Your task to perform on an android device: Search for razer naga on bestbuy.com, select the first entry, and add it to the cart. Image 0: 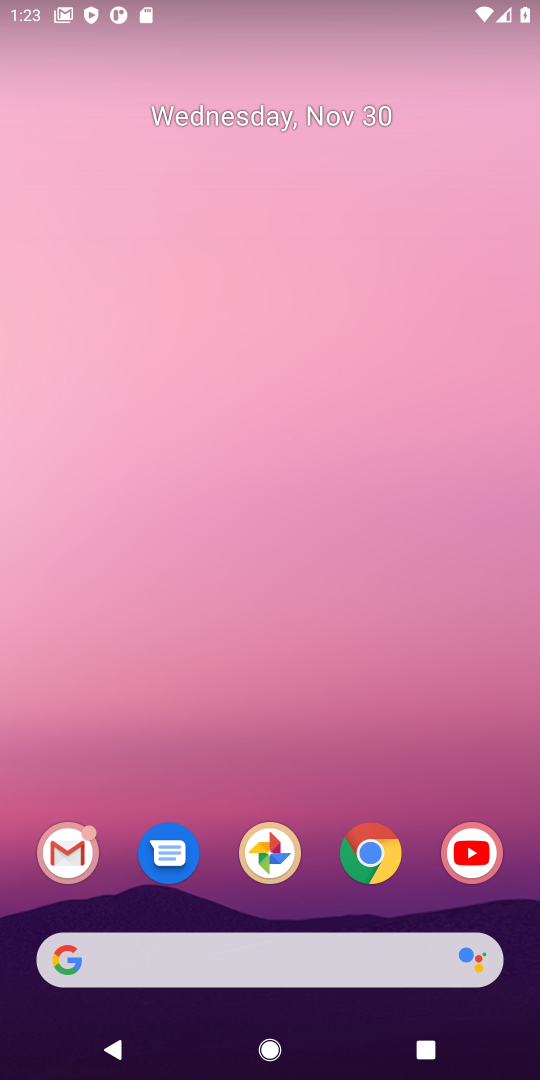
Step 0: click (367, 858)
Your task to perform on an android device: Search for razer naga on bestbuy.com, select the first entry, and add it to the cart. Image 1: 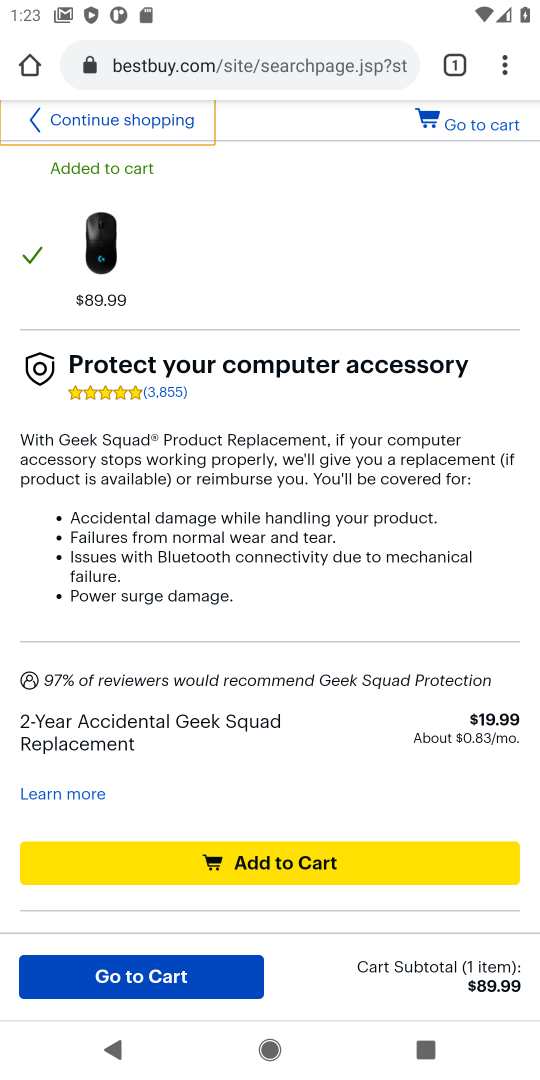
Step 1: press back button
Your task to perform on an android device: Search for razer naga on bestbuy.com, select the first entry, and add it to the cart. Image 2: 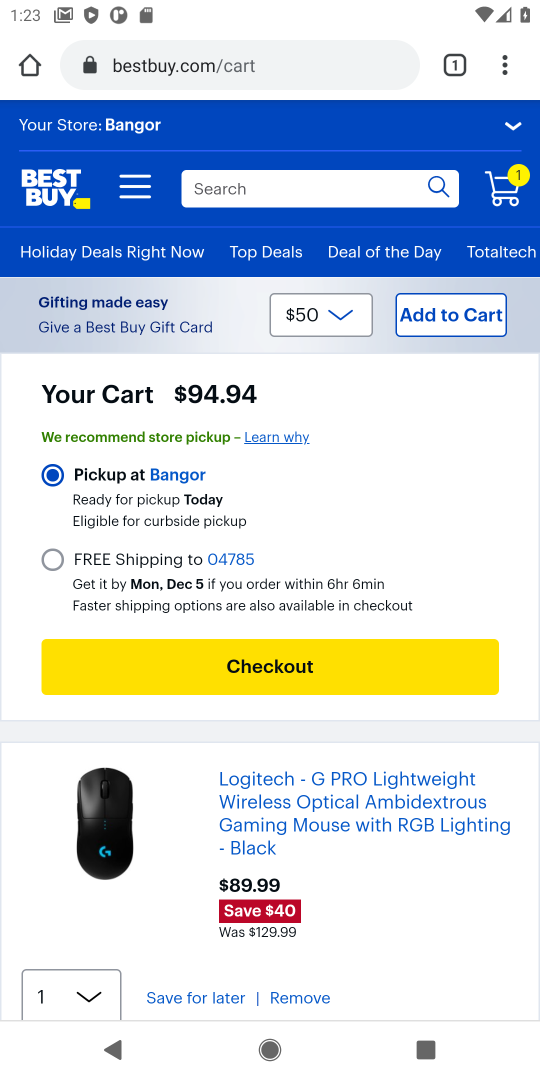
Step 2: click (255, 186)
Your task to perform on an android device: Search for razer naga on bestbuy.com, select the first entry, and add it to the cart. Image 3: 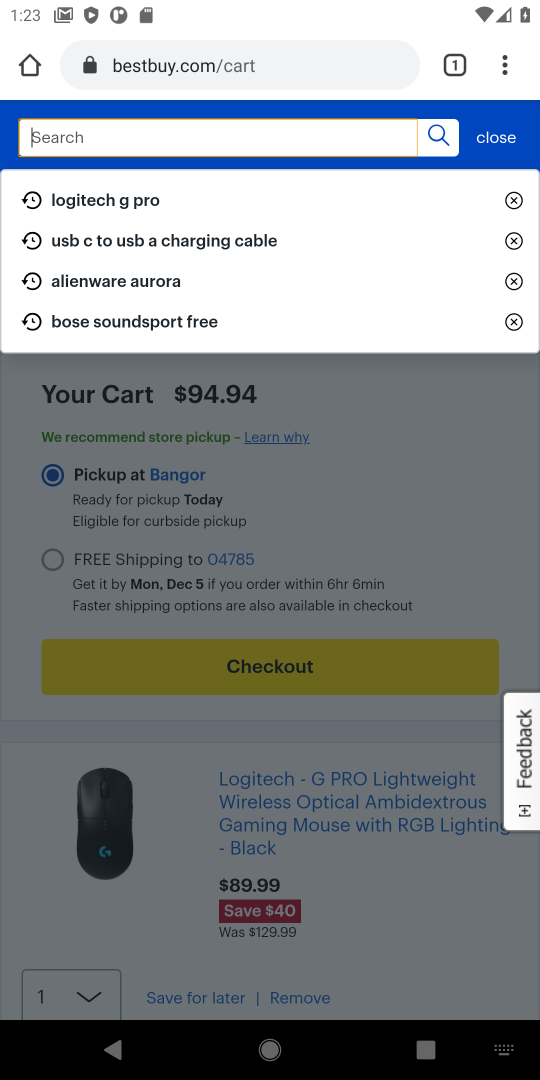
Step 3: type "razer naga"
Your task to perform on an android device: Search for razer naga on bestbuy.com, select the first entry, and add it to the cart. Image 4: 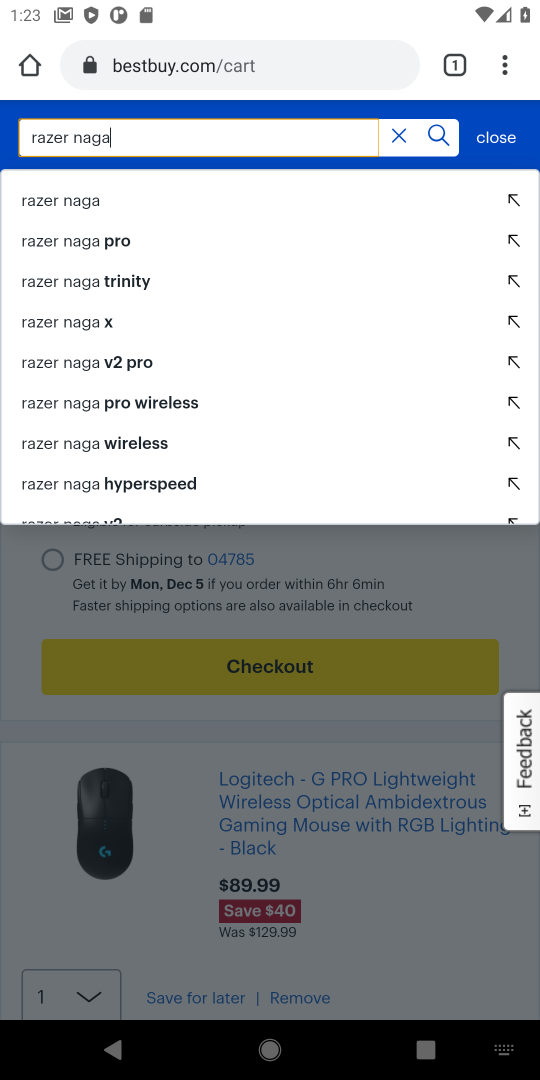
Step 4: click (51, 214)
Your task to perform on an android device: Search for razer naga on bestbuy.com, select the first entry, and add it to the cart. Image 5: 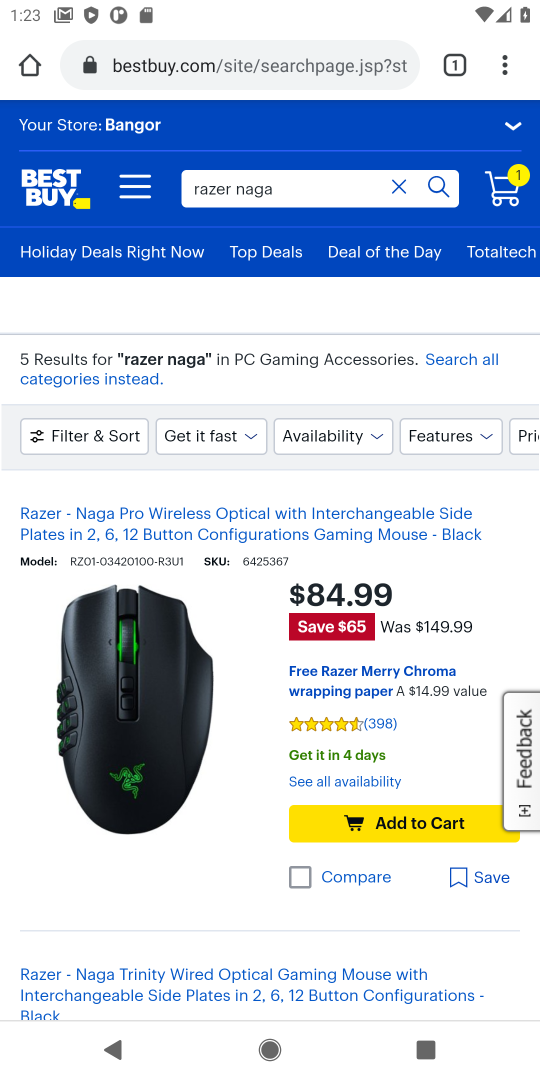
Step 5: click (189, 709)
Your task to perform on an android device: Search for razer naga on bestbuy.com, select the first entry, and add it to the cart. Image 6: 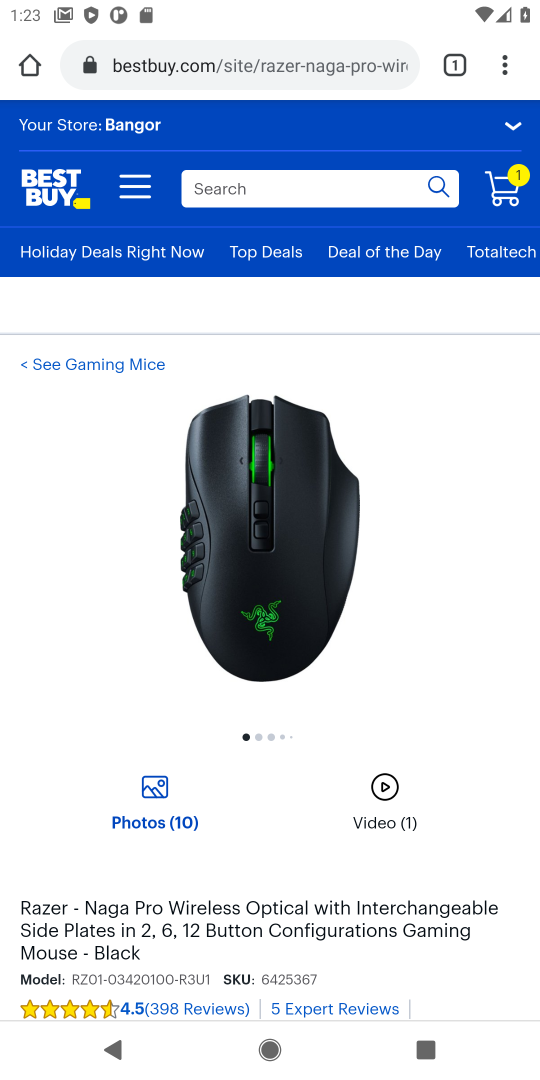
Step 6: drag from (265, 799) to (261, 444)
Your task to perform on an android device: Search for razer naga on bestbuy.com, select the first entry, and add it to the cart. Image 7: 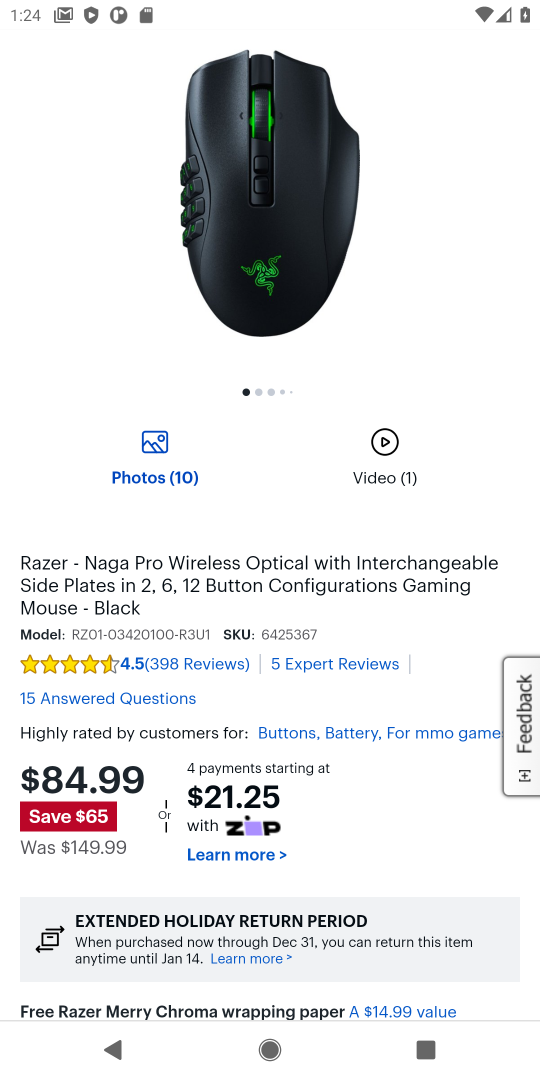
Step 7: drag from (386, 766) to (341, 303)
Your task to perform on an android device: Search for razer naga on bestbuy.com, select the first entry, and add it to the cart. Image 8: 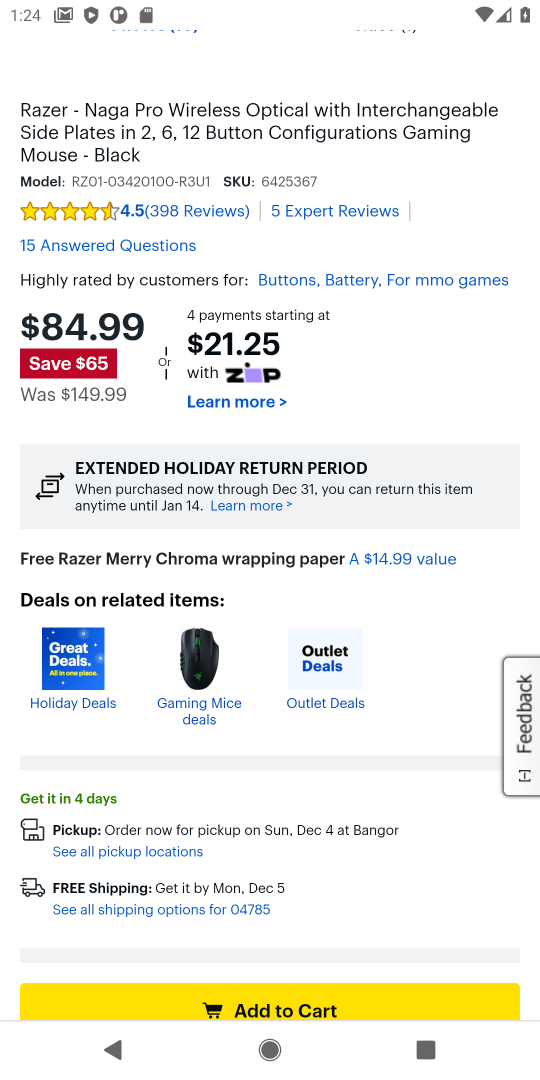
Step 8: drag from (324, 668) to (319, 585)
Your task to perform on an android device: Search for razer naga on bestbuy.com, select the first entry, and add it to the cart. Image 9: 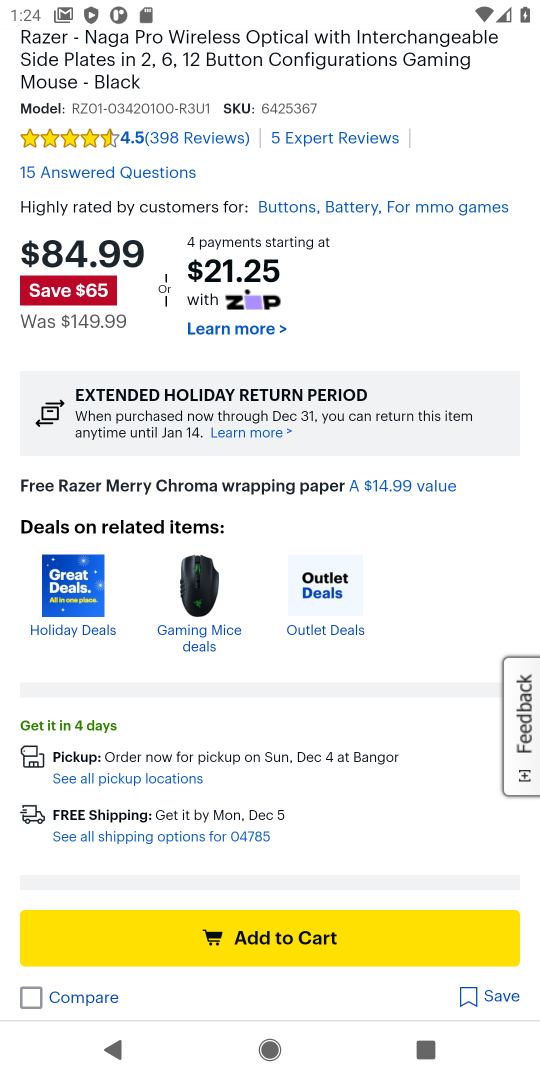
Step 9: click (248, 938)
Your task to perform on an android device: Search for razer naga on bestbuy.com, select the first entry, and add it to the cart. Image 10: 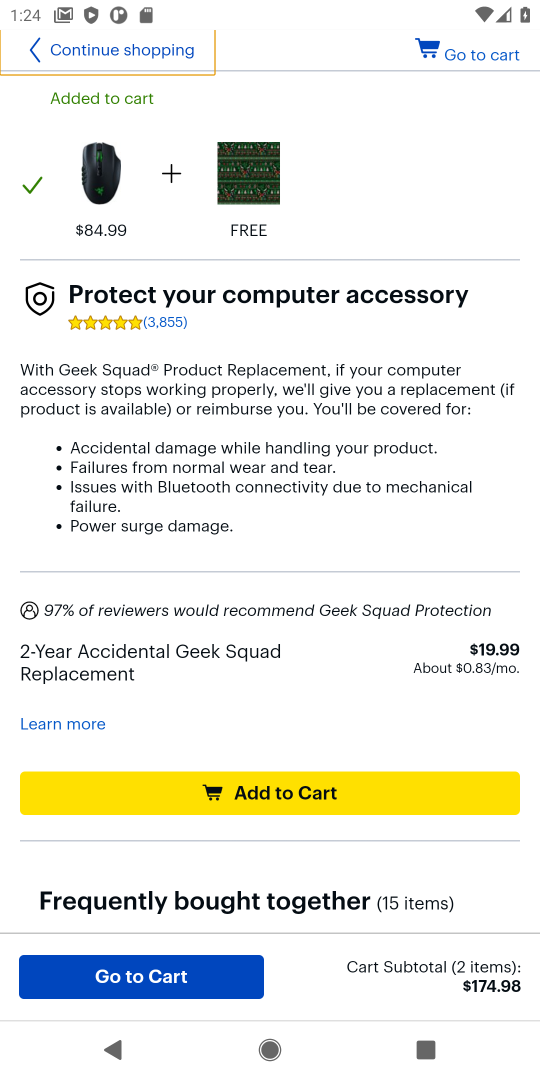
Step 10: task complete